Your task to perform on an android device: check google app version Image 0: 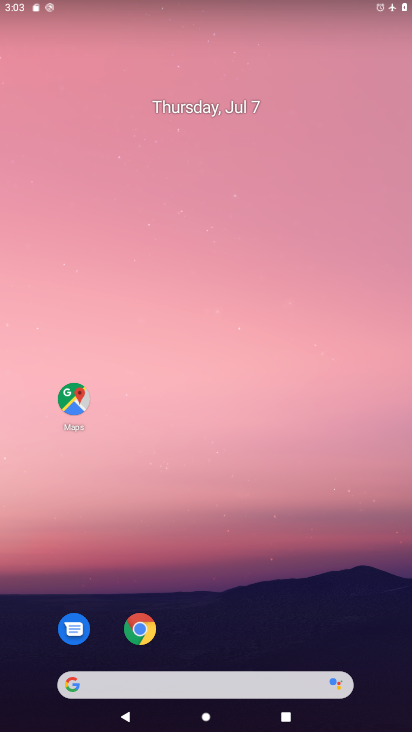
Step 0: drag from (270, 545) to (253, 34)
Your task to perform on an android device: check google app version Image 1: 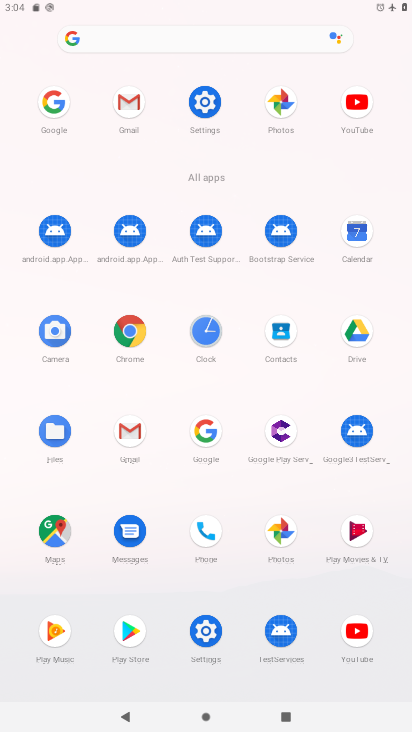
Step 1: click (49, 106)
Your task to perform on an android device: check google app version Image 2: 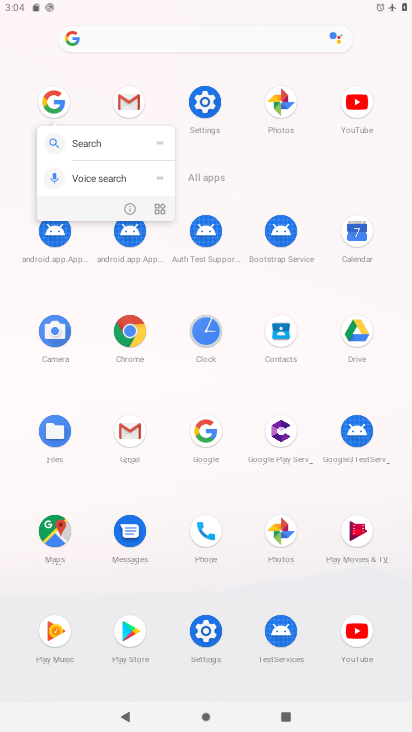
Step 2: click (130, 209)
Your task to perform on an android device: check google app version Image 3: 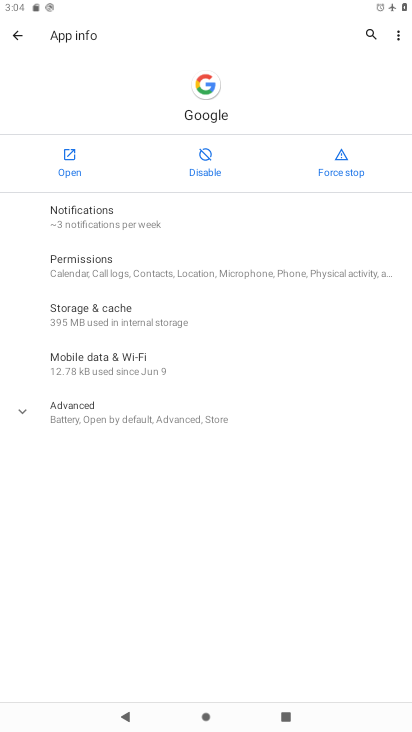
Step 3: click (154, 422)
Your task to perform on an android device: check google app version Image 4: 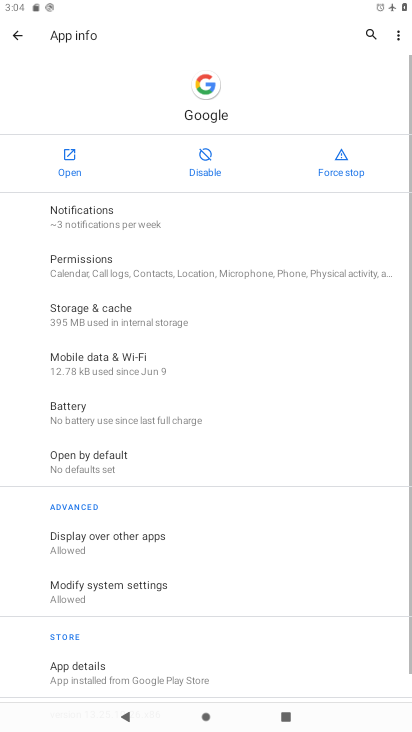
Step 4: task complete